Your task to perform on an android device: change alarm snooze length Image 0: 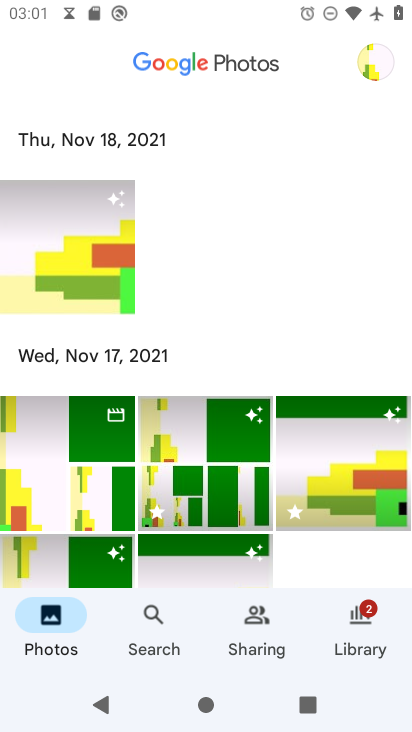
Step 0: press home button
Your task to perform on an android device: change alarm snooze length Image 1: 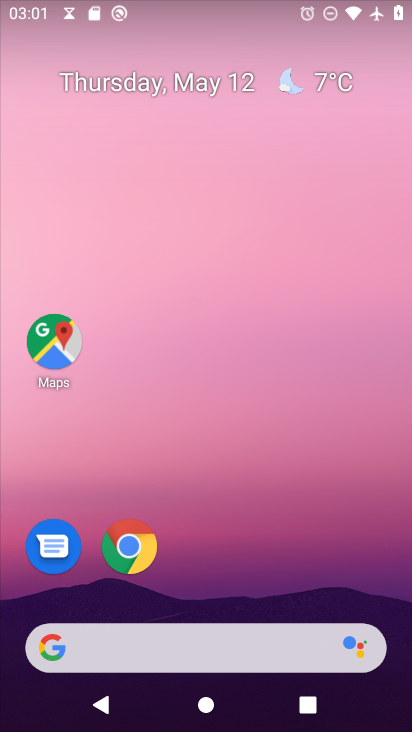
Step 1: drag from (149, 656) to (257, 114)
Your task to perform on an android device: change alarm snooze length Image 2: 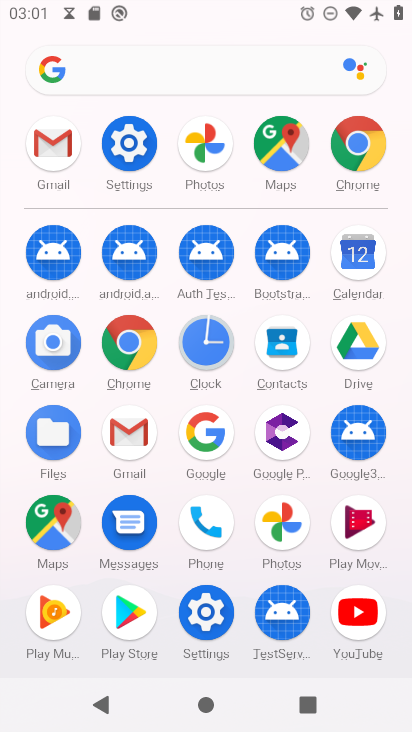
Step 2: click (216, 357)
Your task to perform on an android device: change alarm snooze length Image 3: 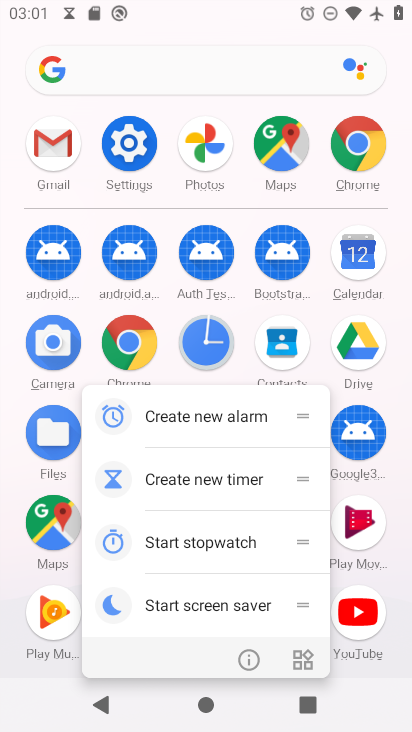
Step 3: click (199, 340)
Your task to perform on an android device: change alarm snooze length Image 4: 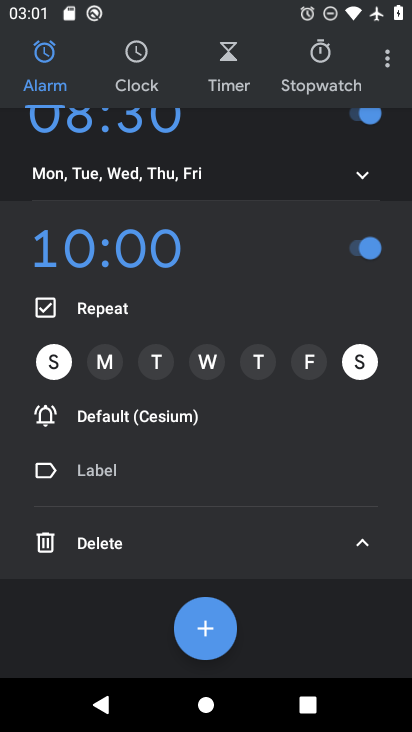
Step 4: click (388, 69)
Your task to perform on an android device: change alarm snooze length Image 5: 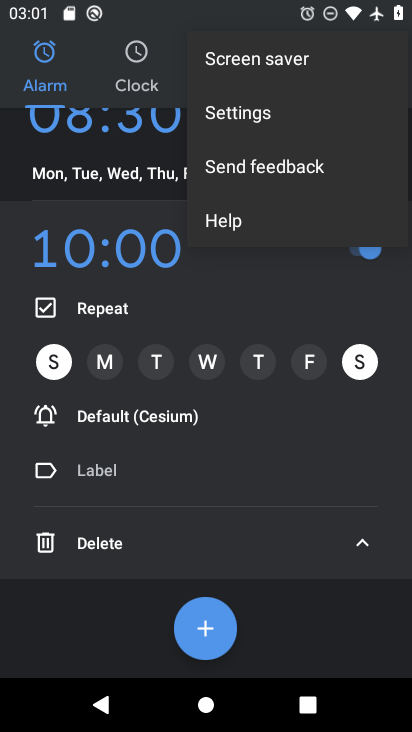
Step 5: click (243, 117)
Your task to perform on an android device: change alarm snooze length Image 6: 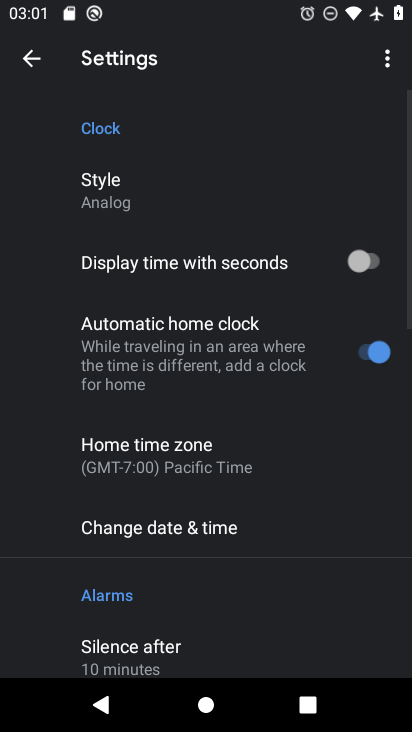
Step 6: drag from (221, 602) to (263, 244)
Your task to perform on an android device: change alarm snooze length Image 7: 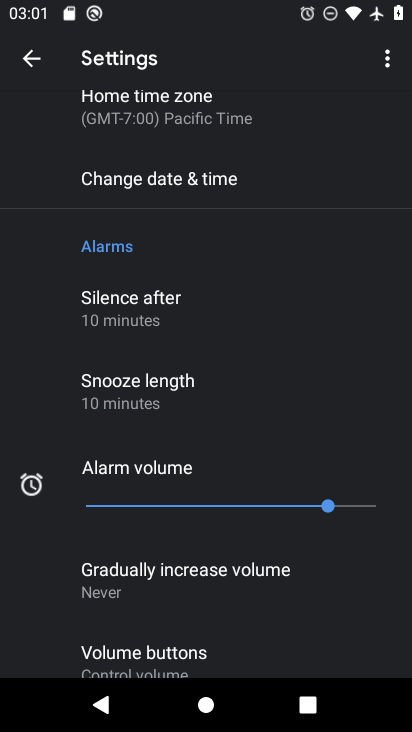
Step 7: click (141, 393)
Your task to perform on an android device: change alarm snooze length Image 8: 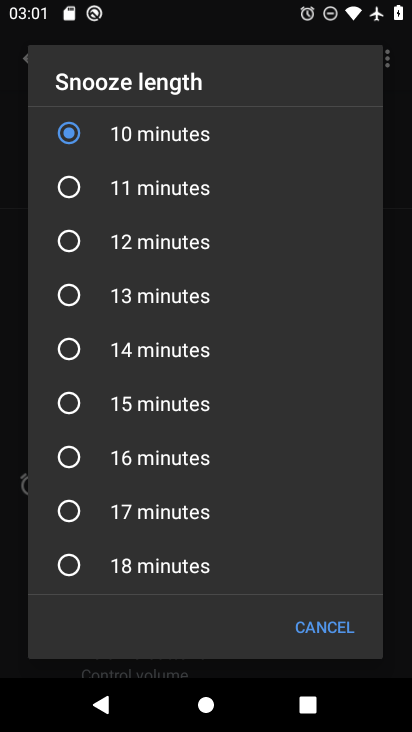
Step 8: click (71, 401)
Your task to perform on an android device: change alarm snooze length Image 9: 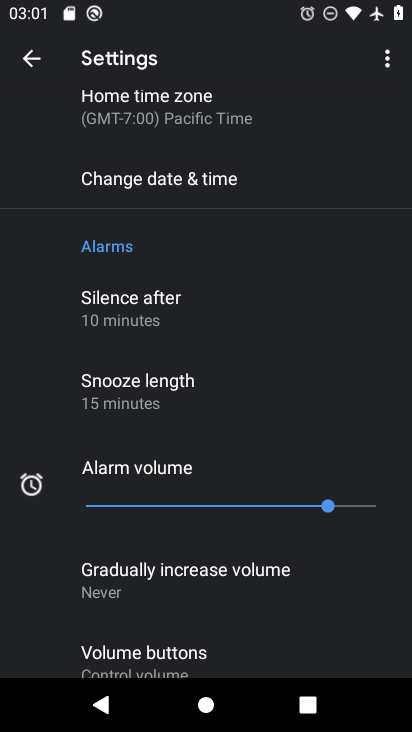
Step 9: task complete